Your task to perform on an android device: Open Chrome and go to the settings page Image 0: 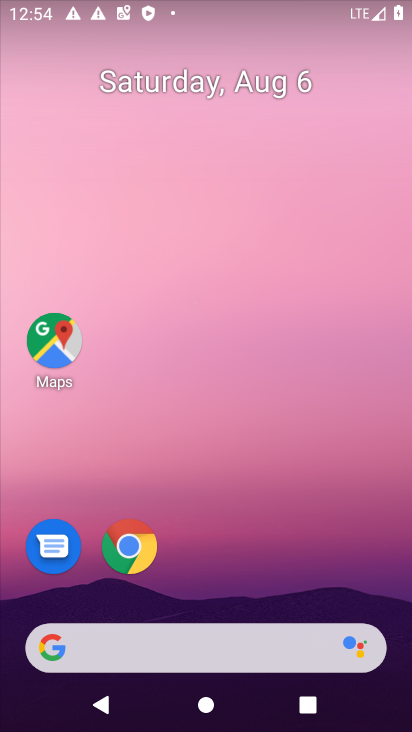
Step 0: click (128, 548)
Your task to perform on an android device: Open Chrome and go to the settings page Image 1: 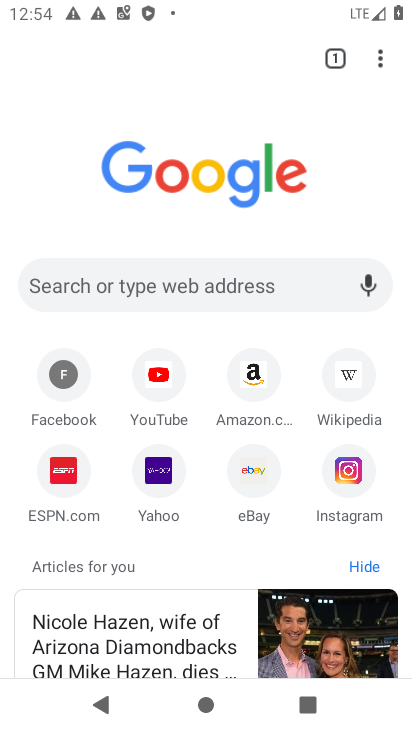
Step 1: click (379, 63)
Your task to perform on an android device: Open Chrome and go to the settings page Image 2: 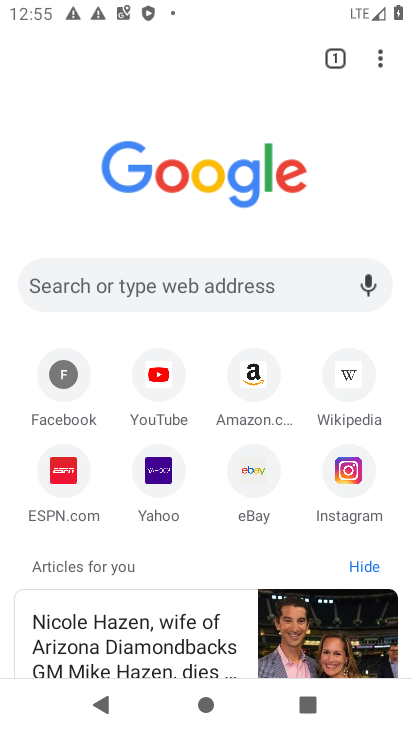
Step 2: click (375, 67)
Your task to perform on an android device: Open Chrome and go to the settings page Image 3: 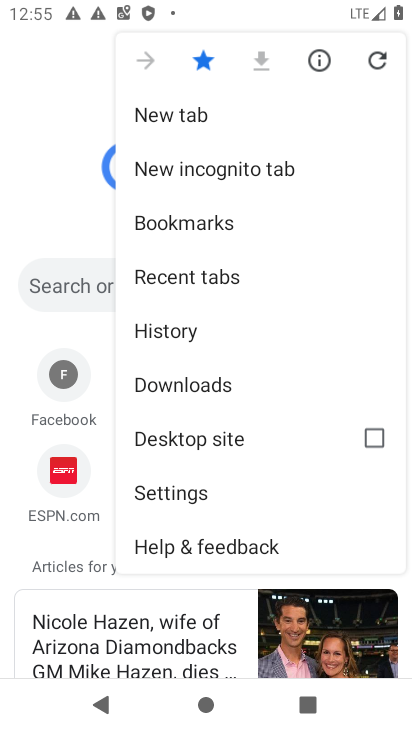
Step 3: click (178, 489)
Your task to perform on an android device: Open Chrome and go to the settings page Image 4: 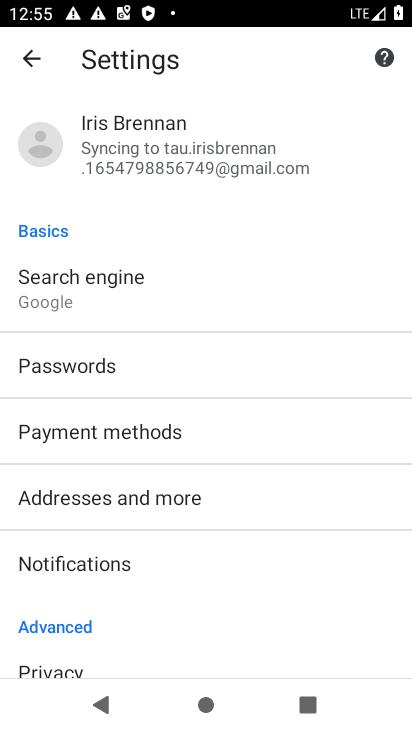
Step 4: task complete